Your task to perform on an android device: turn vacation reply on in the gmail app Image 0: 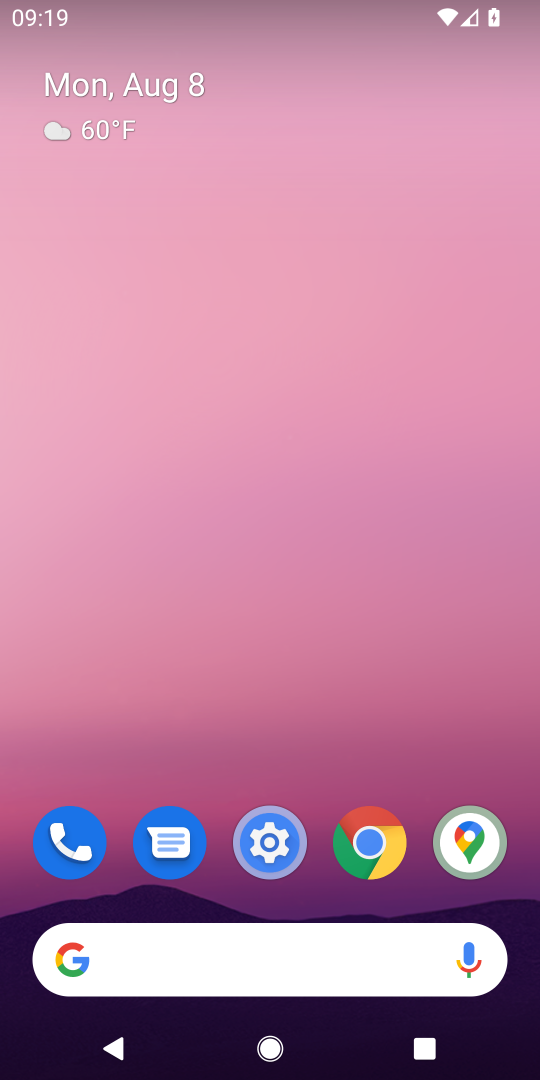
Step 0: drag from (268, 780) to (249, 69)
Your task to perform on an android device: turn vacation reply on in the gmail app Image 1: 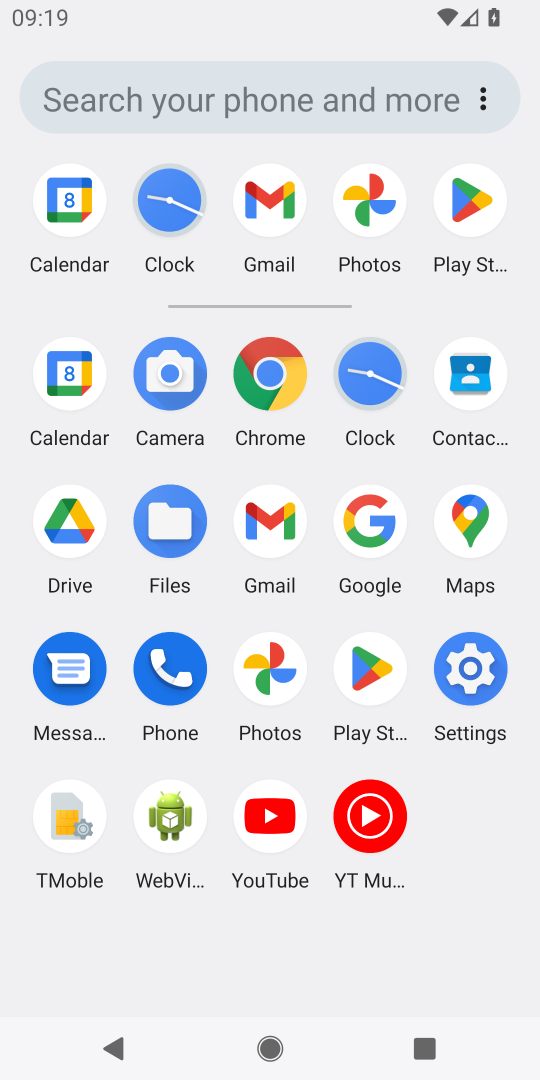
Step 1: click (270, 525)
Your task to perform on an android device: turn vacation reply on in the gmail app Image 2: 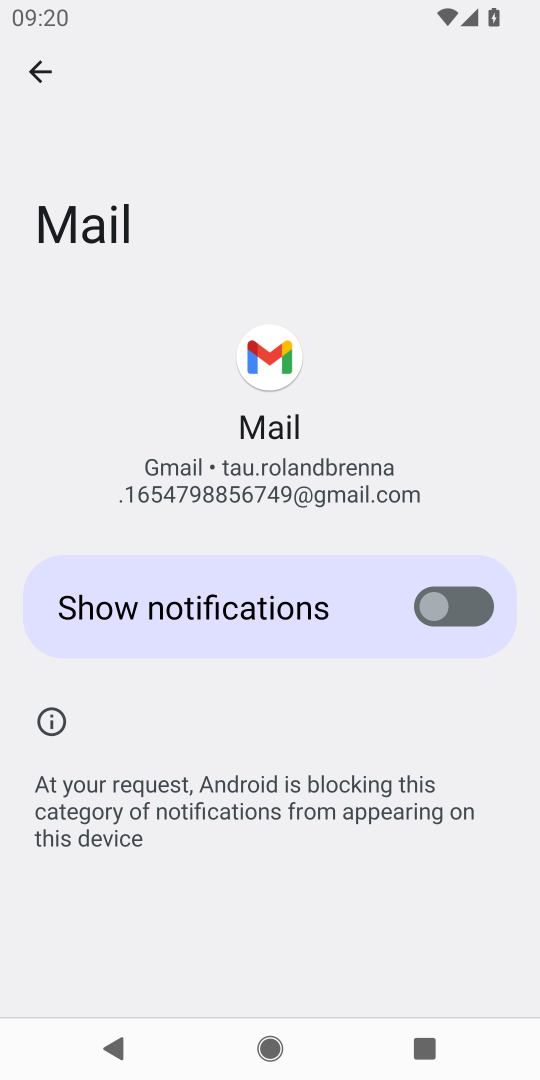
Step 2: click (52, 70)
Your task to perform on an android device: turn vacation reply on in the gmail app Image 3: 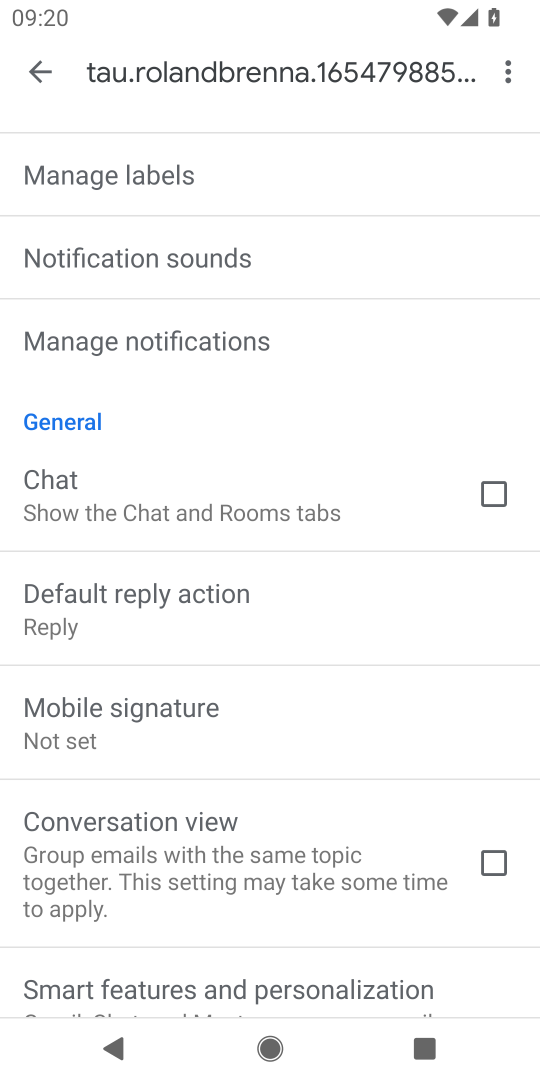
Step 3: drag from (219, 864) to (233, 294)
Your task to perform on an android device: turn vacation reply on in the gmail app Image 4: 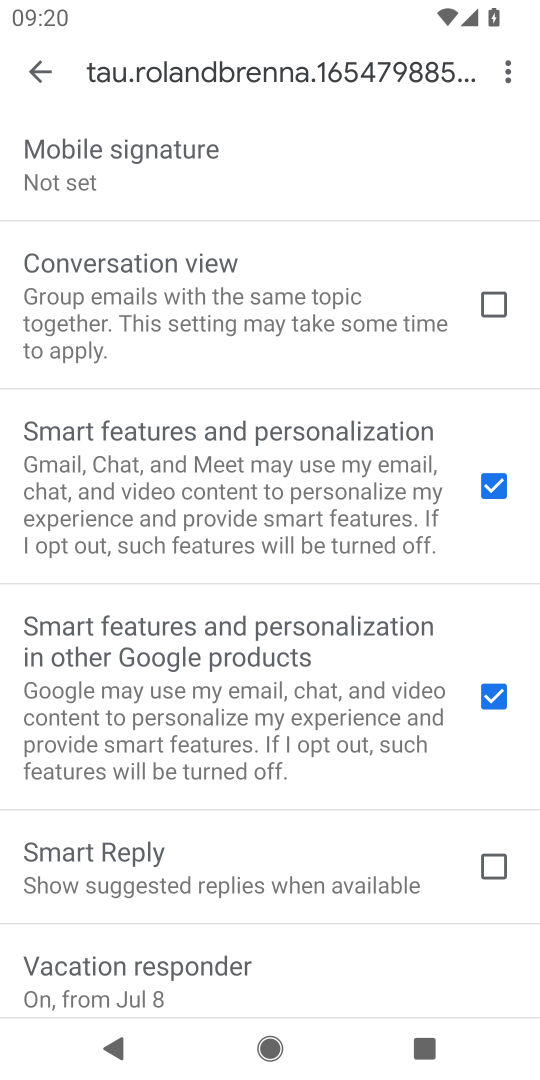
Step 4: click (194, 960)
Your task to perform on an android device: turn vacation reply on in the gmail app Image 5: 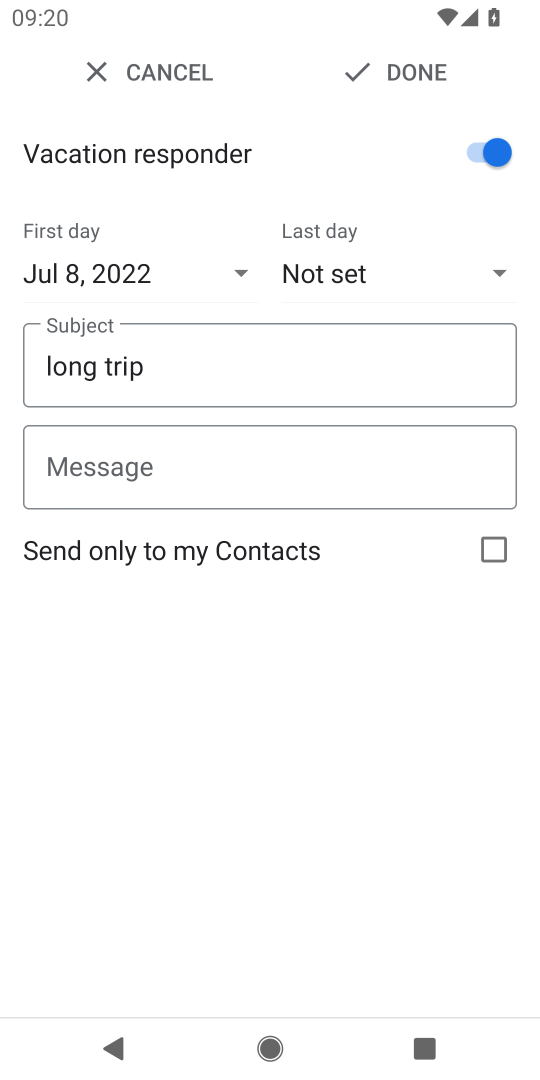
Step 5: click (414, 73)
Your task to perform on an android device: turn vacation reply on in the gmail app Image 6: 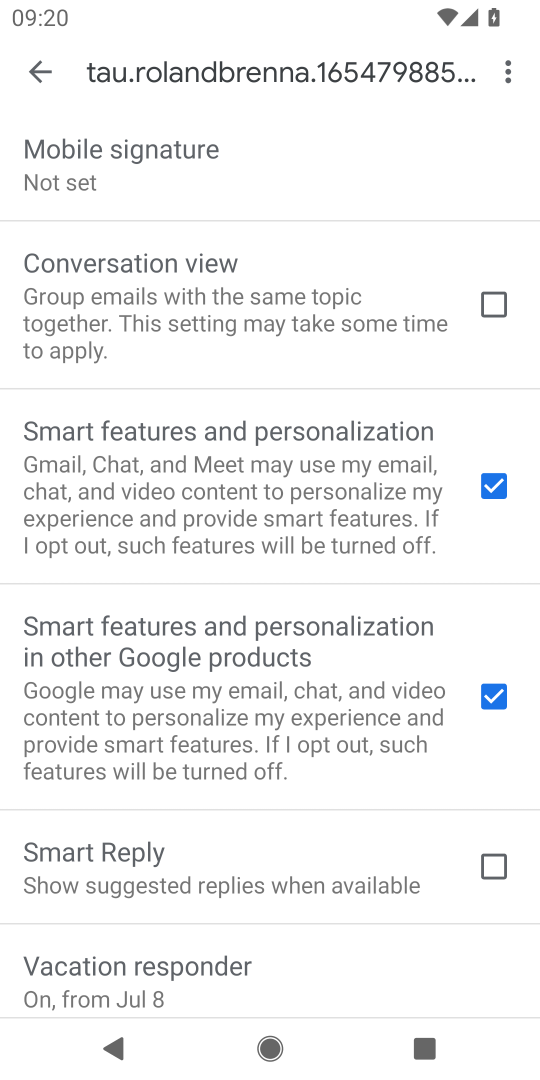
Step 6: task complete